Your task to perform on an android device: Go to settings Image 0: 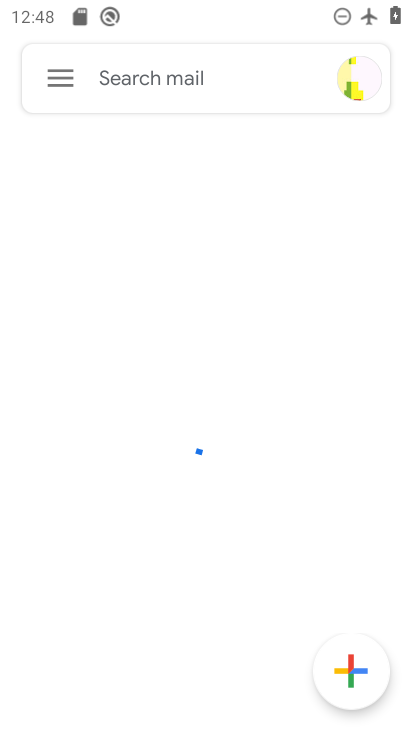
Step 0: press home button
Your task to perform on an android device: Go to settings Image 1: 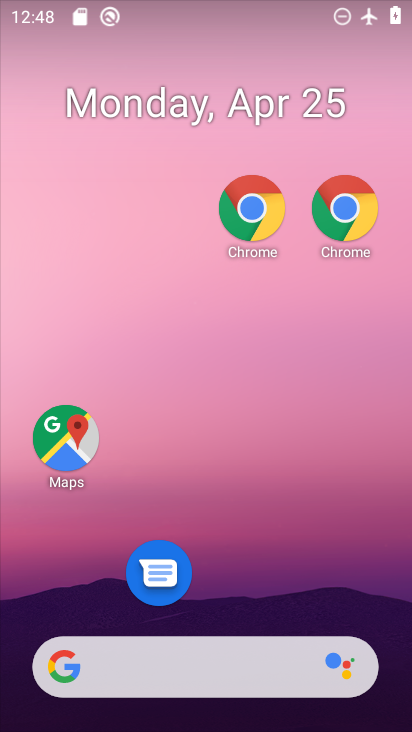
Step 1: drag from (263, 536) to (135, 3)
Your task to perform on an android device: Go to settings Image 2: 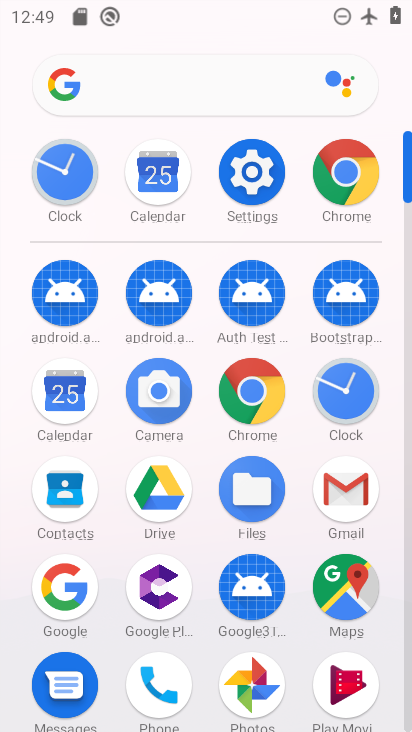
Step 2: click (241, 164)
Your task to perform on an android device: Go to settings Image 3: 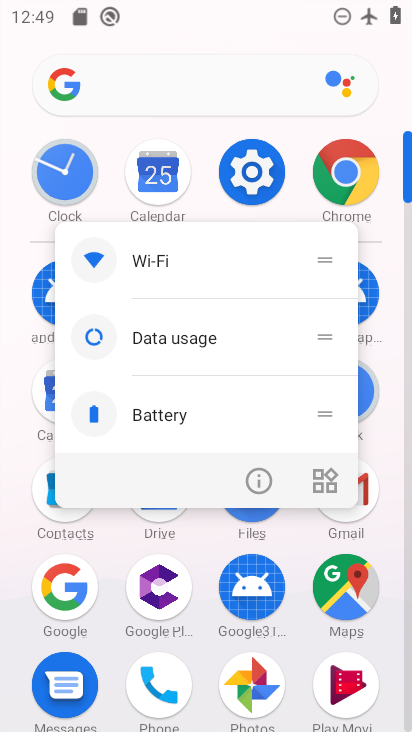
Step 3: click (242, 170)
Your task to perform on an android device: Go to settings Image 4: 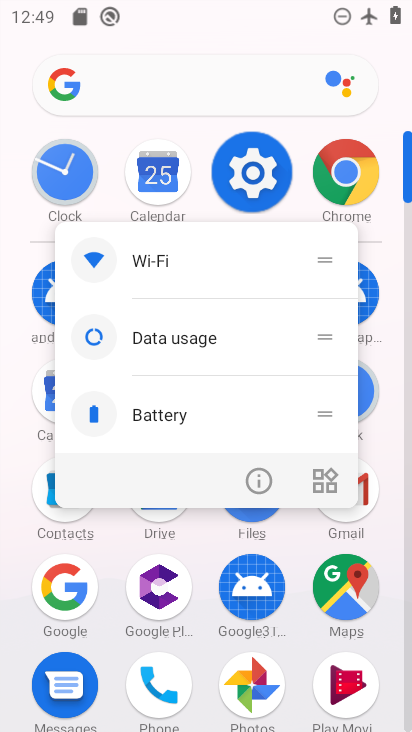
Step 4: click (242, 170)
Your task to perform on an android device: Go to settings Image 5: 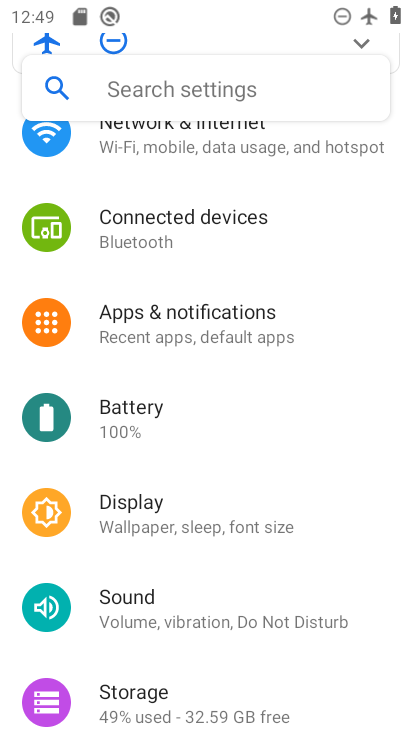
Step 5: click (243, 171)
Your task to perform on an android device: Go to settings Image 6: 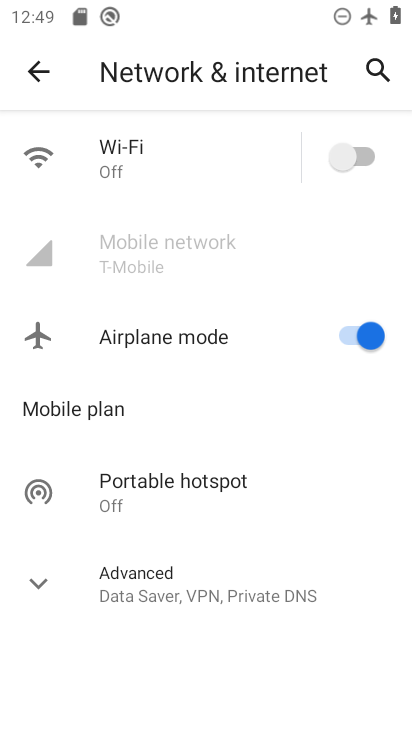
Step 6: click (29, 69)
Your task to perform on an android device: Go to settings Image 7: 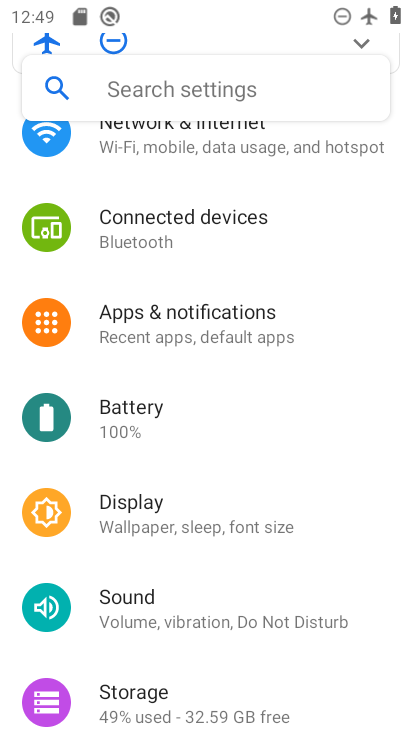
Step 7: task complete